Your task to perform on an android device: check android version Image 0: 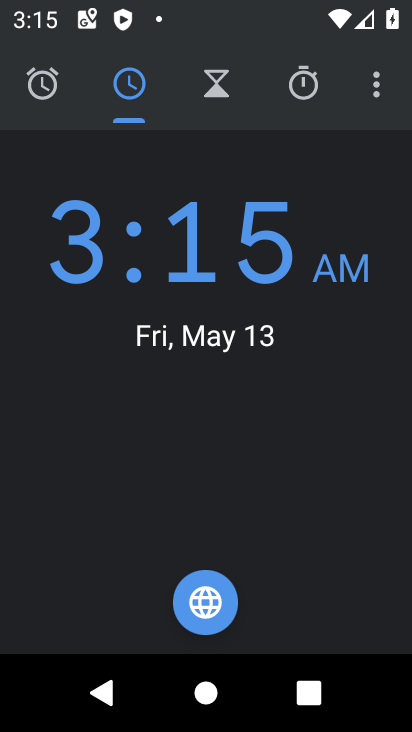
Step 0: press home button
Your task to perform on an android device: check android version Image 1: 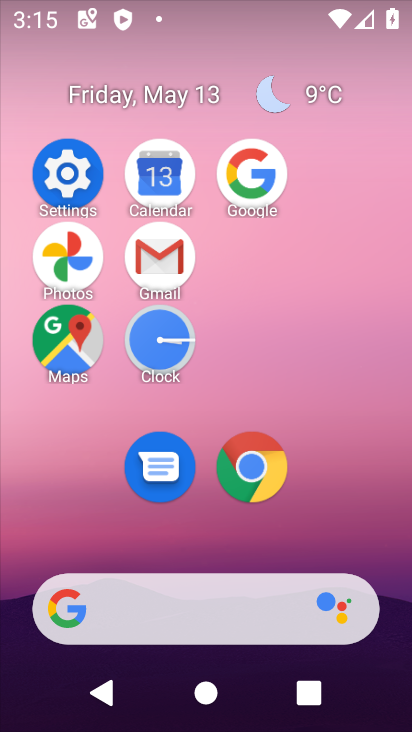
Step 1: click (74, 184)
Your task to perform on an android device: check android version Image 2: 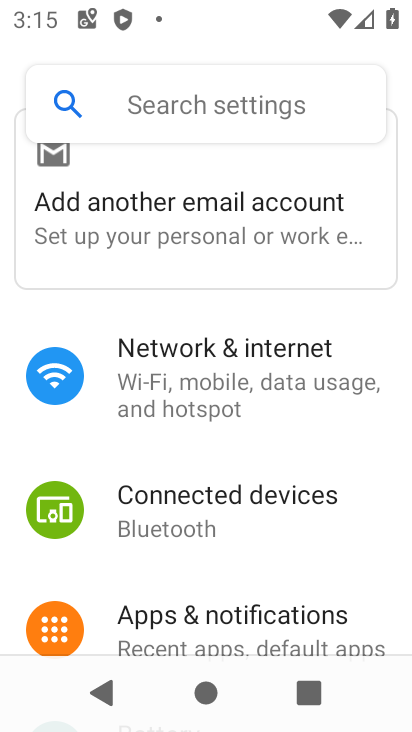
Step 2: drag from (253, 560) to (254, 199)
Your task to perform on an android device: check android version Image 3: 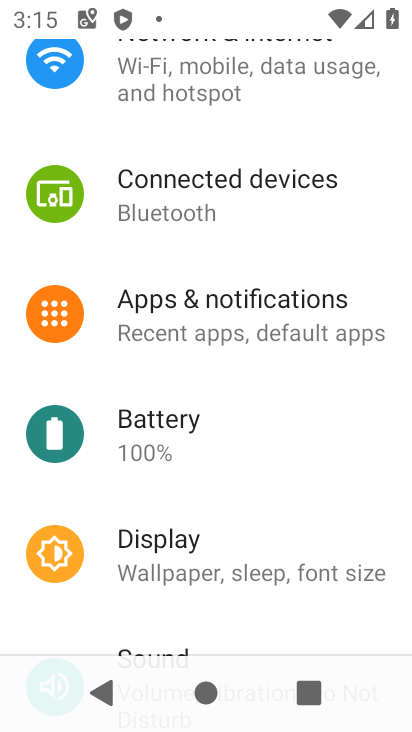
Step 3: drag from (248, 565) to (272, 159)
Your task to perform on an android device: check android version Image 4: 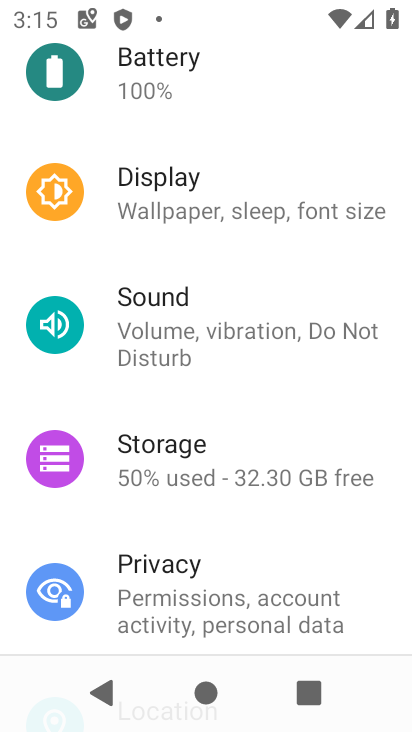
Step 4: drag from (278, 538) to (301, 67)
Your task to perform on an android device: check android version Image 5: 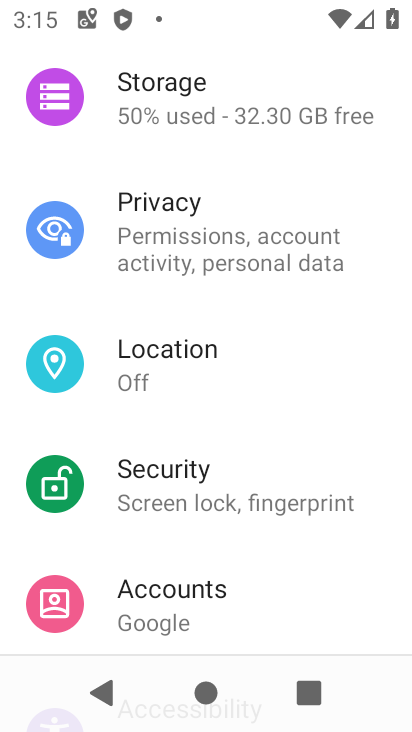
Step 5: drag from (247, 558) to (297, 139)
Your task to perform on an android device: check android version Image 6: 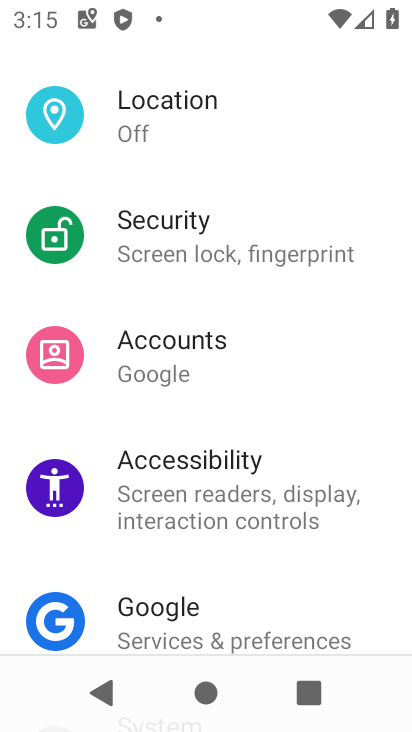
Step 6: drag from (260, 600) to (299, 168)
Your task to perform on an android device: check android version Image 7: 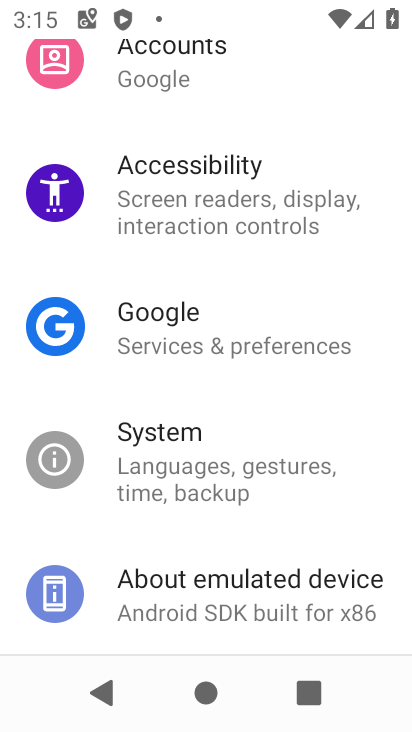
Step 7: click (248, 586)
Your task to perform on an android device: check android version Image 8: 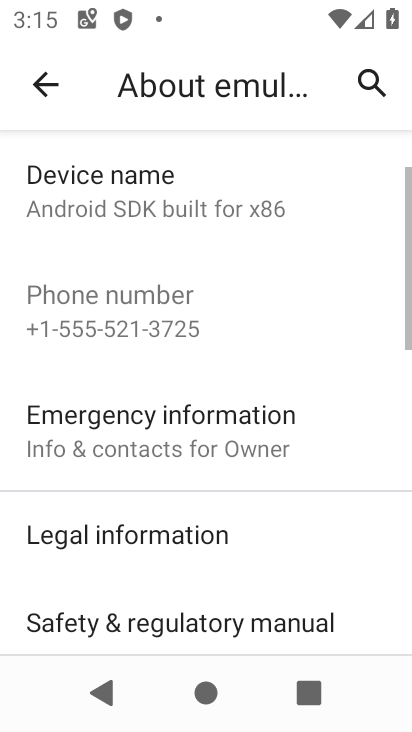
Step 8: task complete